Your task to perform on an android device: turn off javascript in the chrome app Image 0: 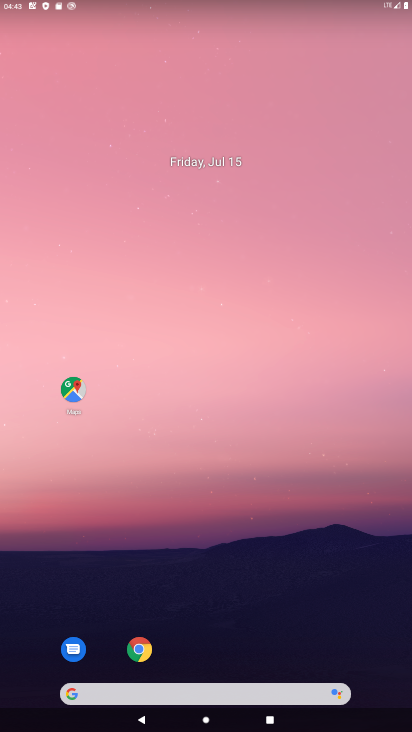
Step 0: drag from (311, 162) to (323, 28)
Your task to perform on an android device: turn off javascript in the chrome app Image 1: 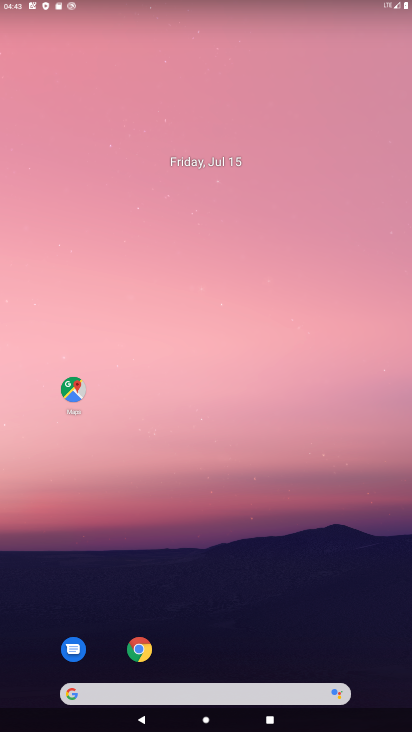
Step 1: drag from (304, 603) to (328, 37)
Your task to perform on an android device: turn off javascript in the chrome app Image 2: 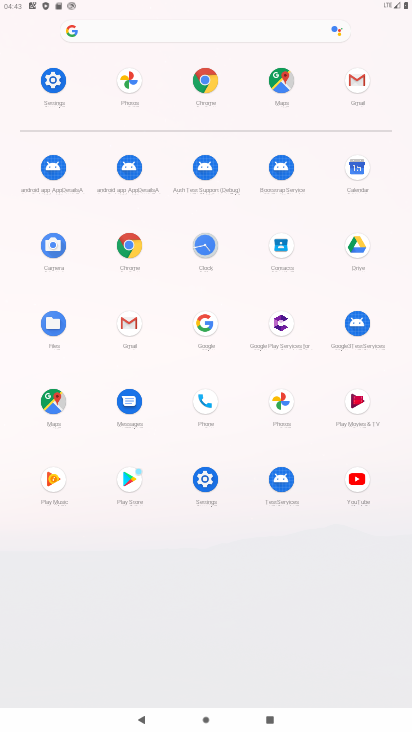
Step 2: click (209, 76)
Your task to perform on an android device: turn off javascript in the chrome app Image 3: 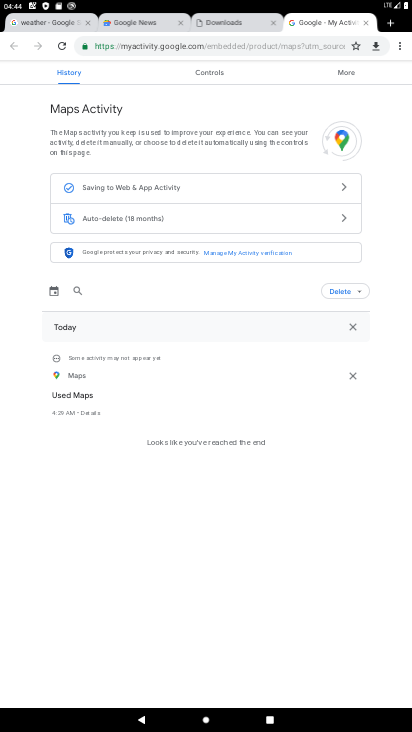
Step 3: drag from (395, 41) to (309, 315)
Your task to perform on an android device: turn off javascript in the chrome app Image 4: 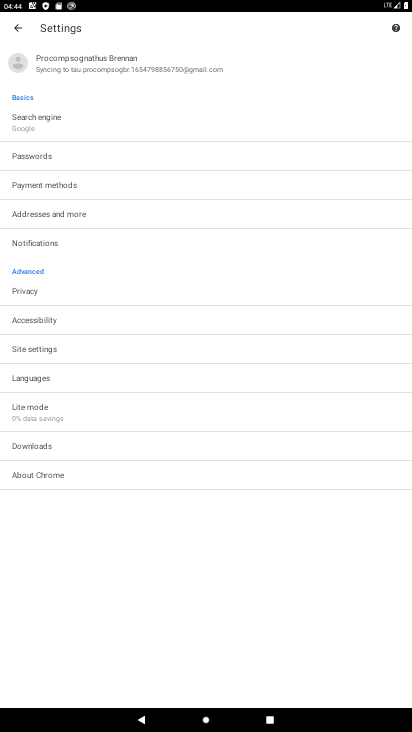
Step 4: click (39, 348)
Your task to perform on an android device: turn off javascript in the chrome app Image 5: 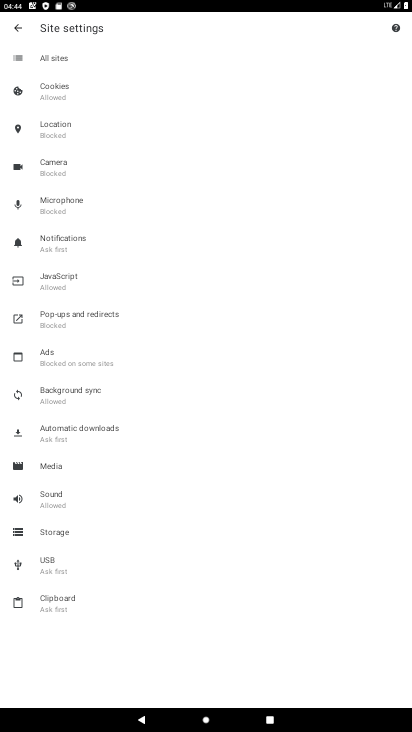
Step 5: click (77, 277)
Your task to perform on an android device: turn off javascript in the chrome app Image 6: 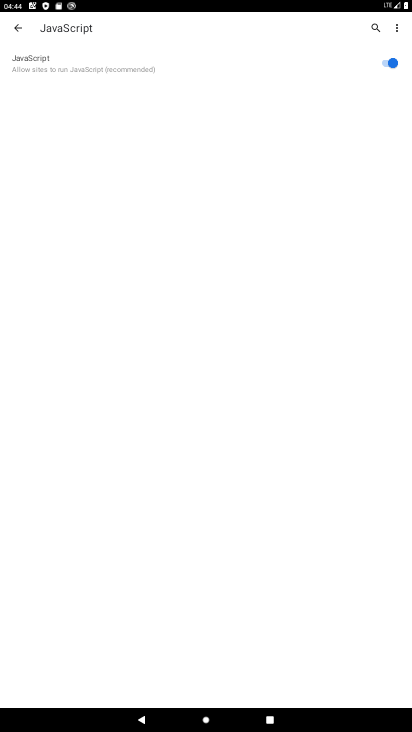
Step 6: click (386, 62)
Your task to perform on an android device: turn off javascript in the chrome app Image 7: 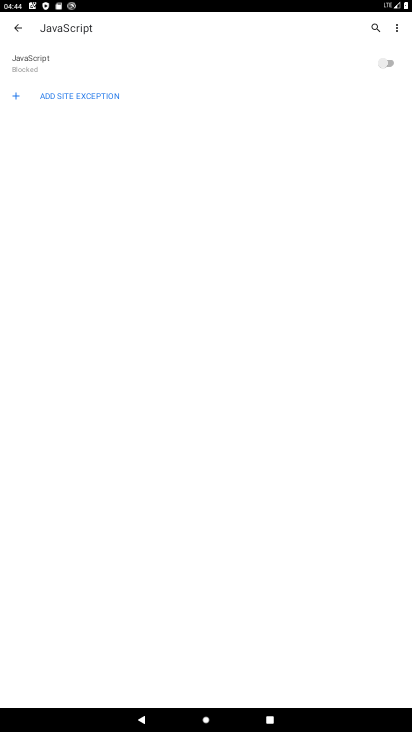
Step 7: task complete